Your task to perform on an android device: turn on translation in the chrome app Image 0: 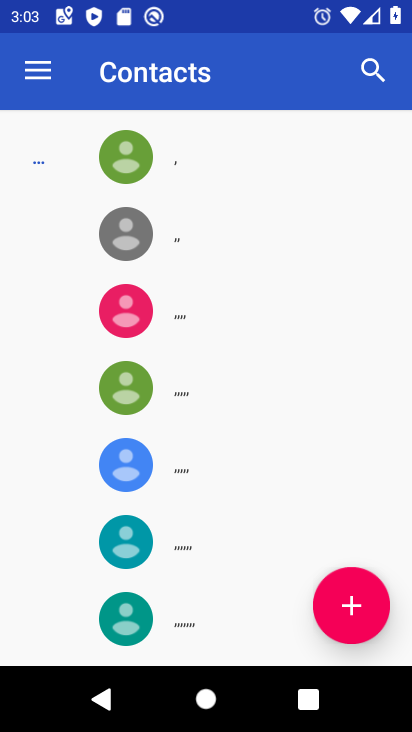
Step 0: press home button
Your task to perform on an android device: turn on translation in the chrome app Image 1: 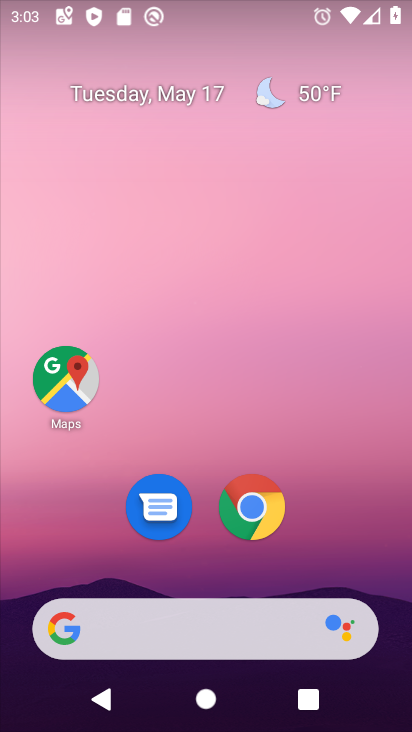
Step 1: click (251, 514)
Your task to perform on an android device: turn on translation in the chrome app Image 2: 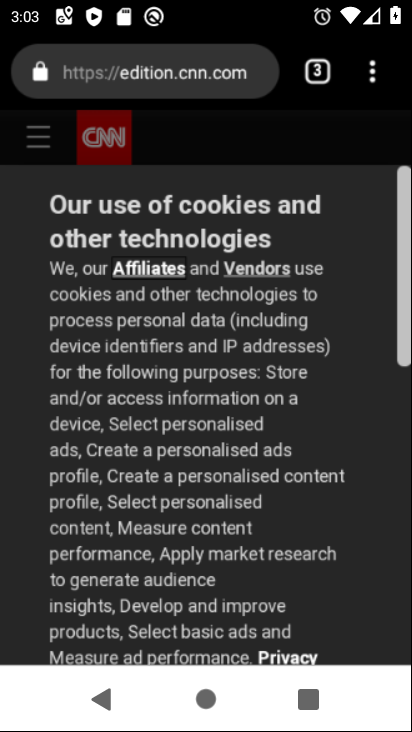
Step 2: click (372, 64)
Your task to perform on an android device: turn on translation in the chrome app Image 3: 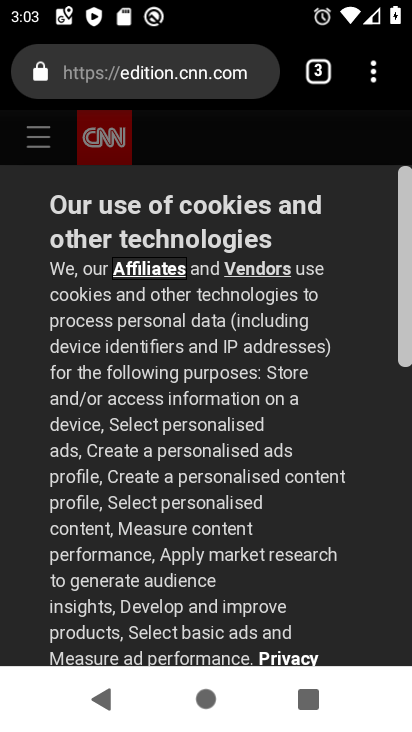
Step 3: click (370, 74)
Your task to perform on an android device: turn on translation in the chrome app Image 4: 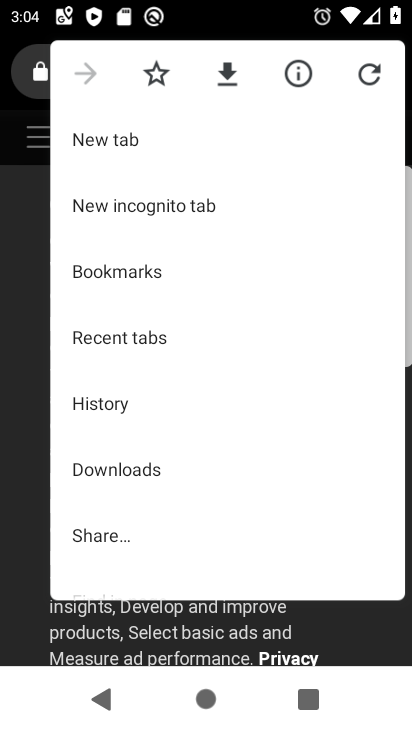
Step 4: drag from (186, 461) to (202, 152)
Your task to perform on an android device: turn on translation in the chrome app Image 5: 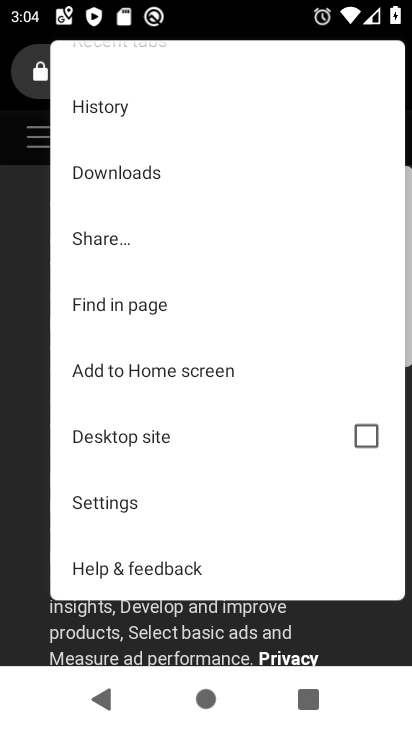
Step 5: click (147, 492)
Your task to perform on an android device: turn on translation in the chrome app Image 6: 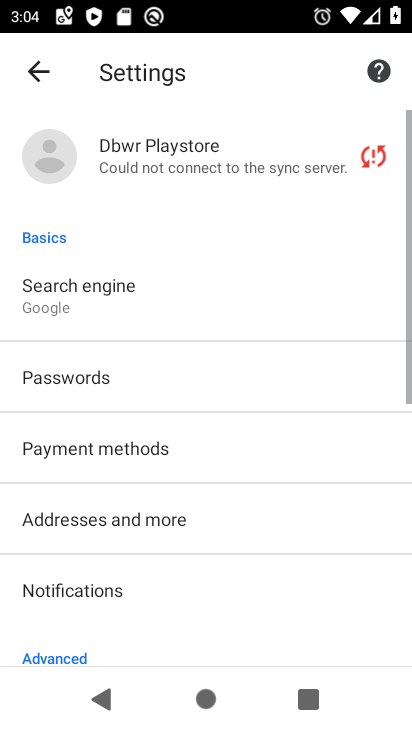
Step 6: drag from (205, 540) to (226, 158)
Your task to perform on an android device: turn on translation in the chrome app Image 7: 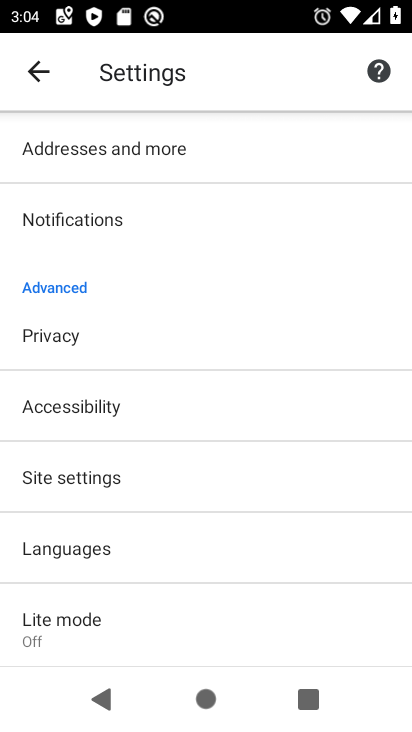
Step 7: click (188, 555)
Your task to perform on an android device: turn on translation in the chrome app Image 8: 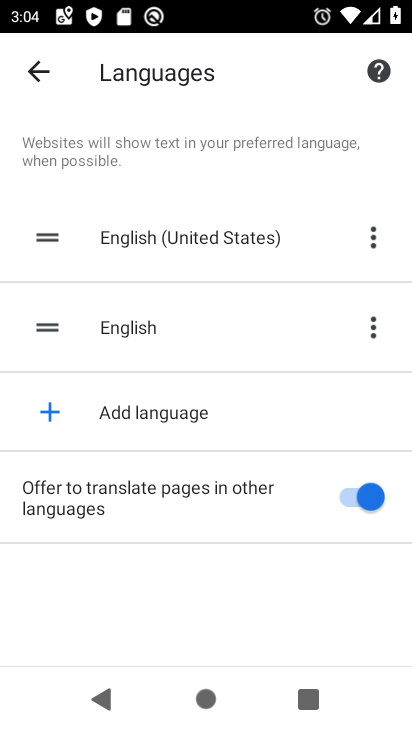
Step 8: task complete